Your task to perform on an android device: open app "Pluto TV - Live TV and Movies" (install if not already installed) Image 0: 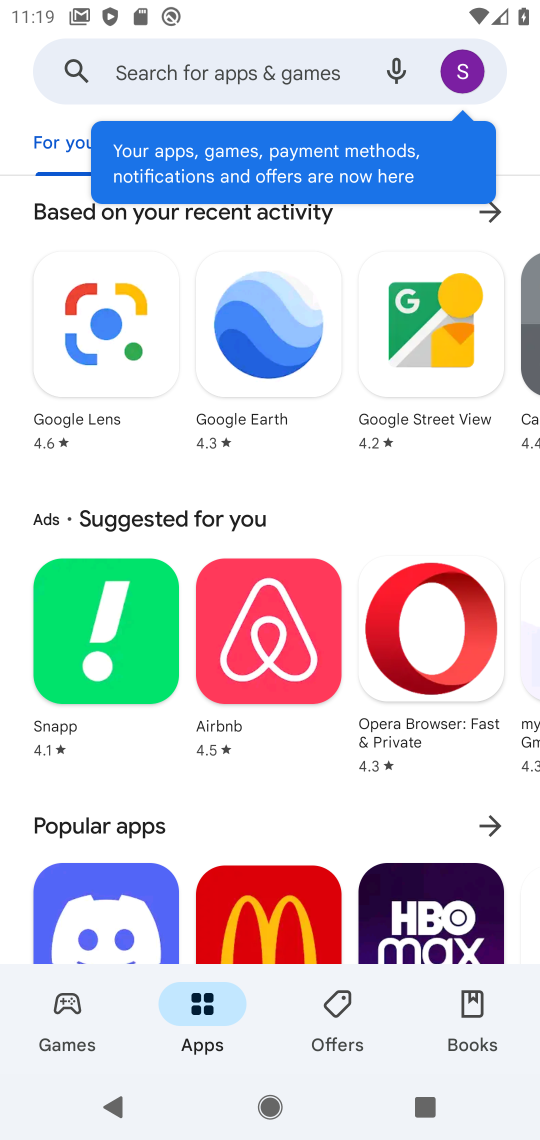
Step 0: click (205, 60)
Your task to perform on an android device: open app "Pluto TV - Live TV and Movies" (install if not already installed) Image 1: 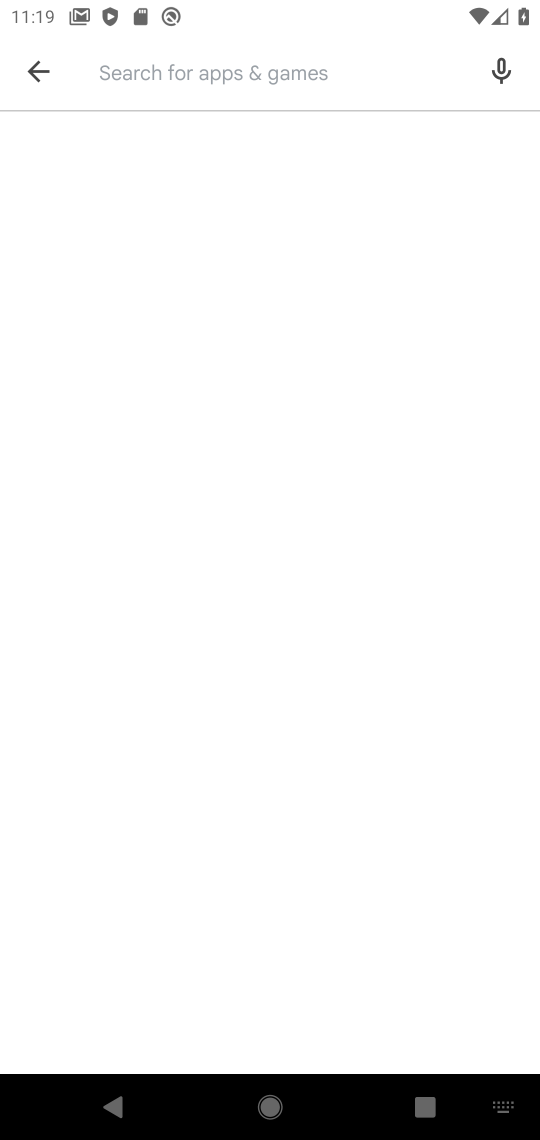
Step 1: type "pluto"
Your task to perform on an android device: open app "Pluto TV - Live TV and Movies" (install if not already installed) Image 2: 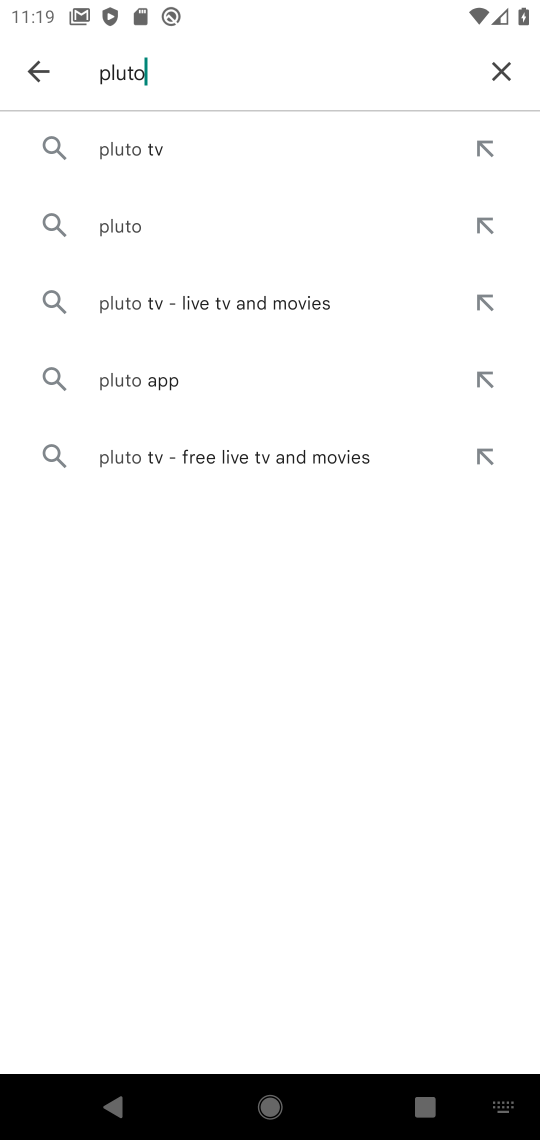
Step 2: click (152, 138)
Your task to perform on an android device: open app "Pluto TV - Live TV and Movies" (install if not already installed) Image 3: 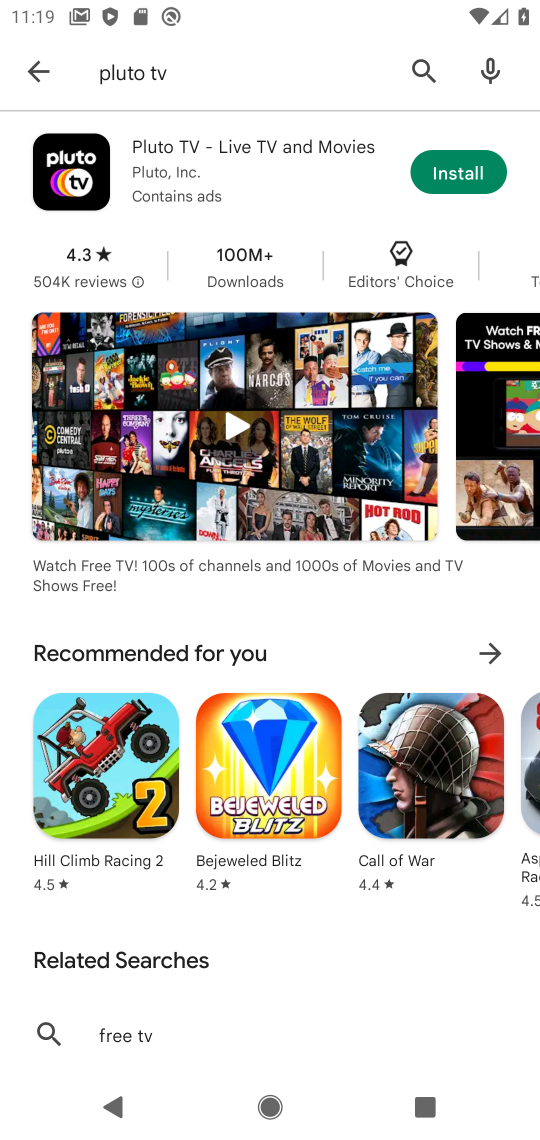
Step 3: click (474, 171)
Your task to perform on an android device: open app "Pluto TV - Live TV and Movies" (install if not already installed) Image 4: 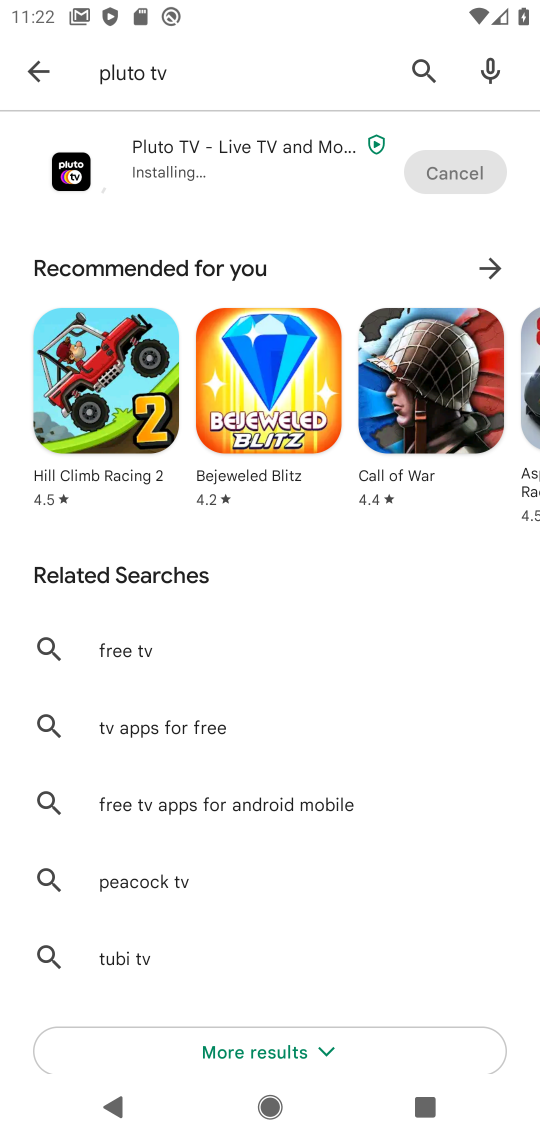
Step 4: click (276, 166)
Your task to perform on an android device: open app "Pluto TV - Live TV and Movies" (install if not already installed) Image 5: 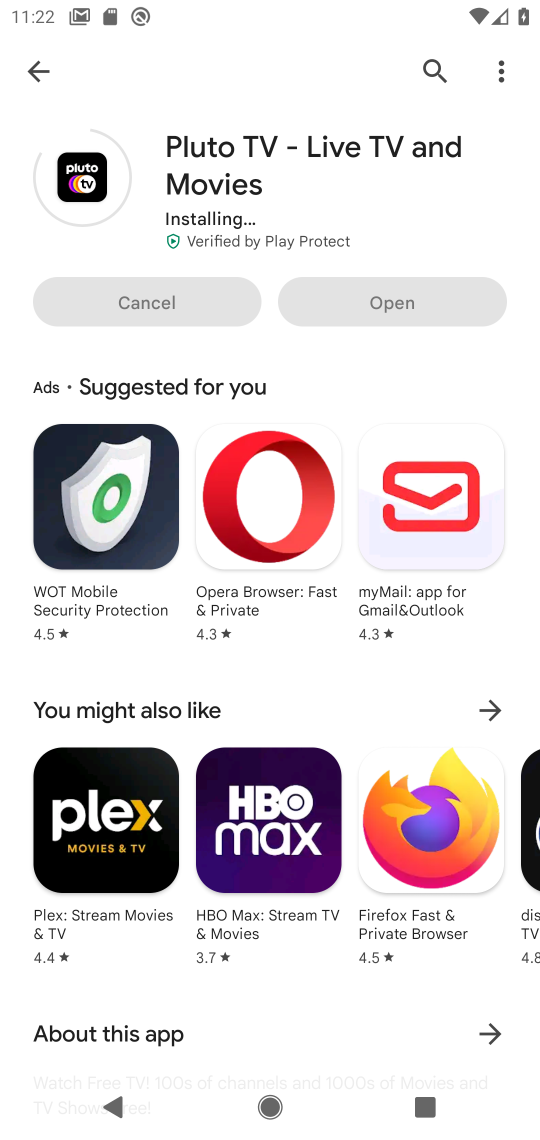
Step 5: press back button
Your task to perform on an android device: open app "Pluto TV - Live TV and Movies" (install if not already installed) Image 6: 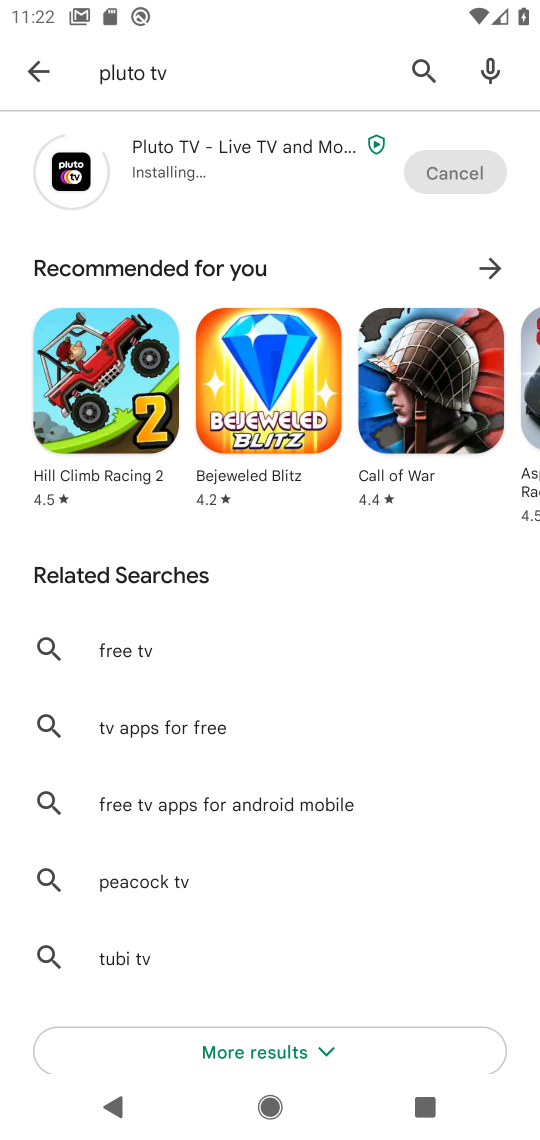
Step 6: press back button
Your task to perform on an android device: open app "Pluto TV - Live TV and Movies" (install if not already installed) Image 7: 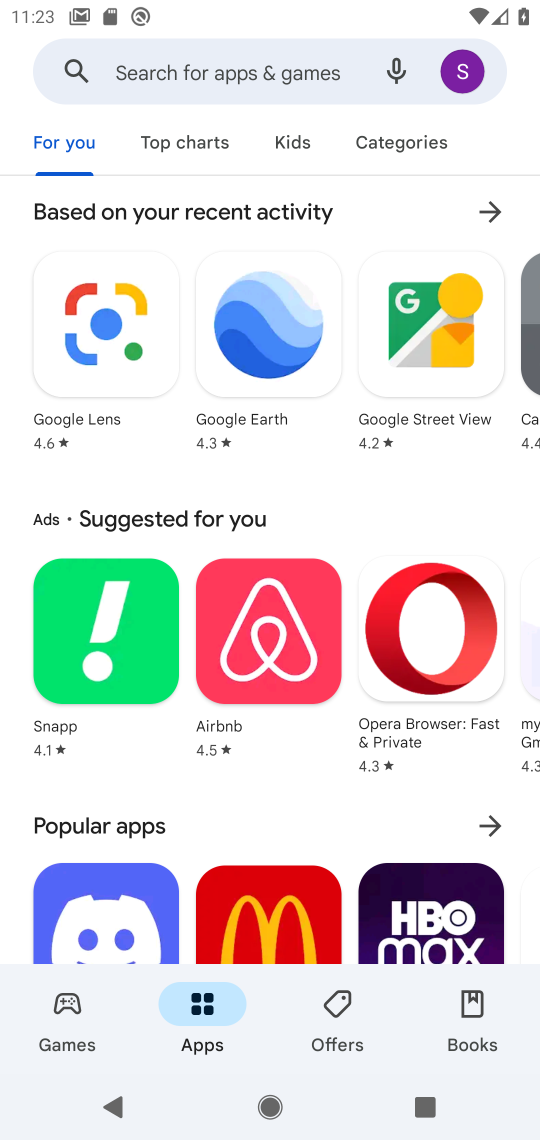
Step 7: click (173, 74)
Your task to perform on an android device: open app "Pluto TV - Live TV and Movies" (install if not already installed) Image 8: 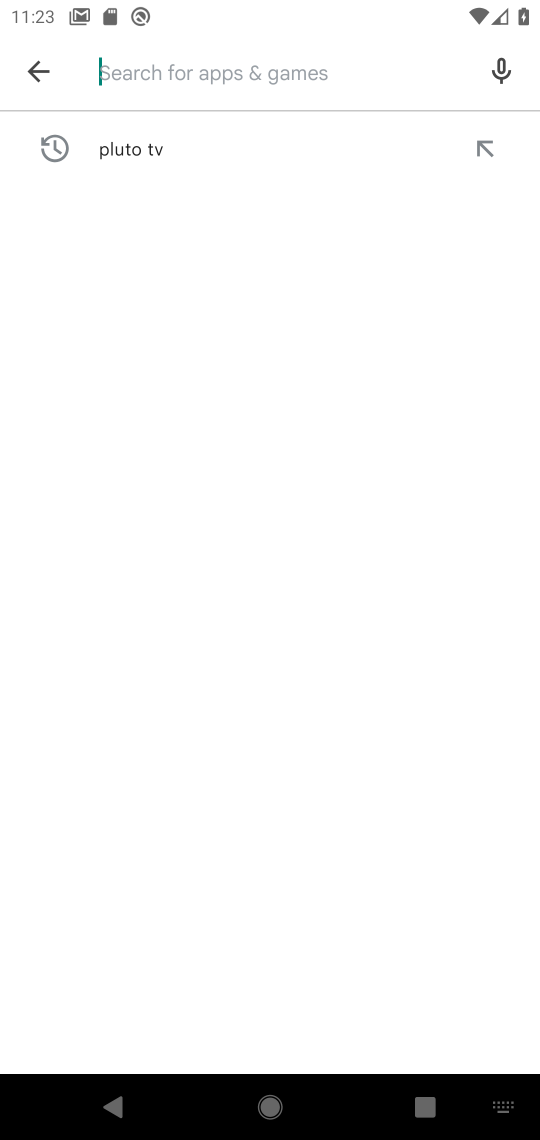
Step 8: click (141, 158)
Your task to perform on an android device: open app "Pluto TV - Live TV and Movies" (install if not already installed) Image 9: 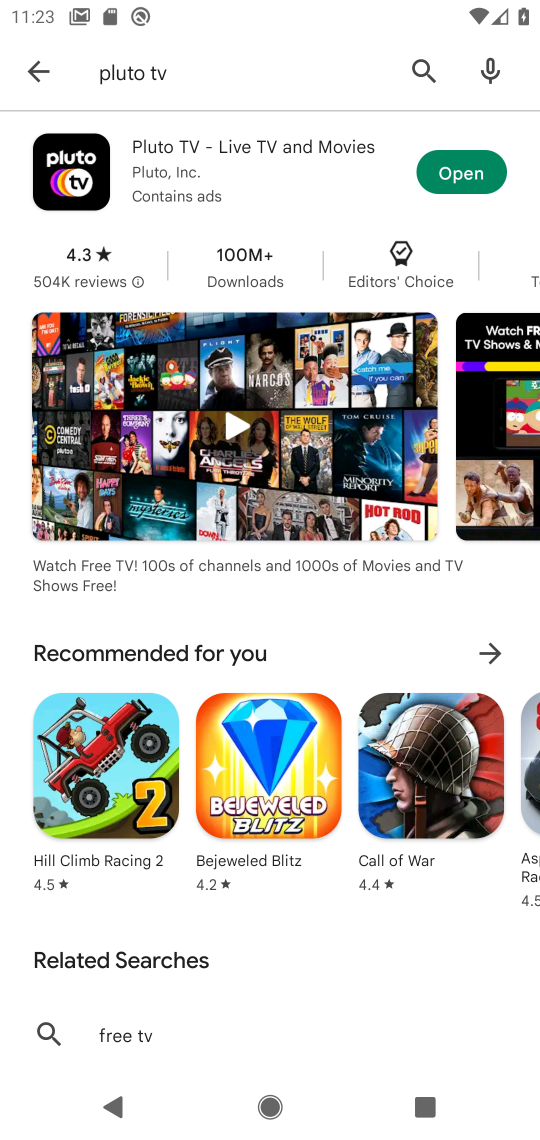
Step 9: click (450, 174)
Your task to perform on an android device: open app "Pluto TV - Live TV and Movies" (install if not already installed) Image 10: 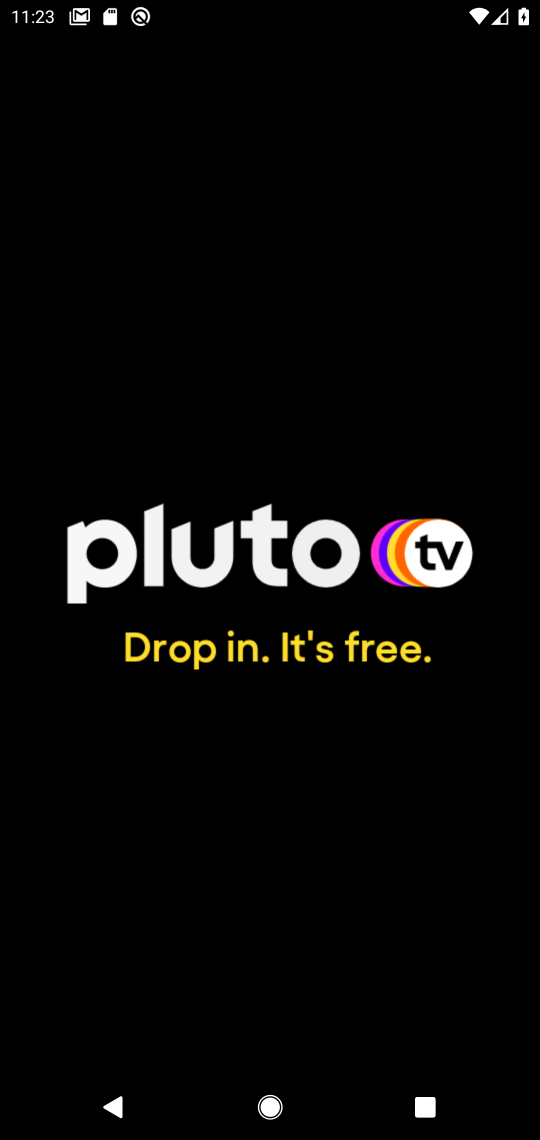
Step 10: task complete